Your task to perform on an android device: open sync settings in chrome Image 0: 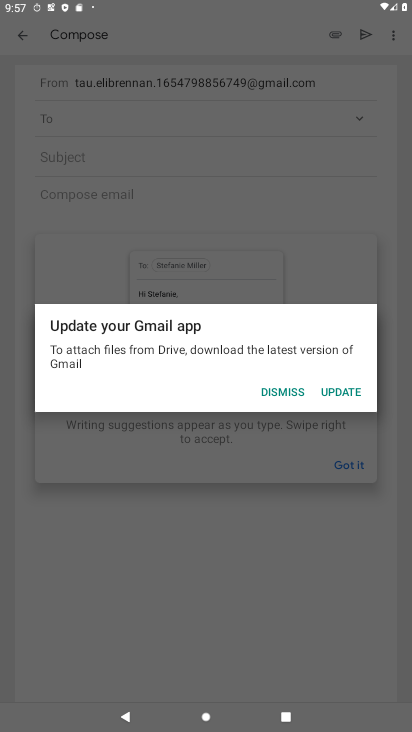
Step 0: press home button
Your task to perform on an android device: open sync settings in chrome Image 1: 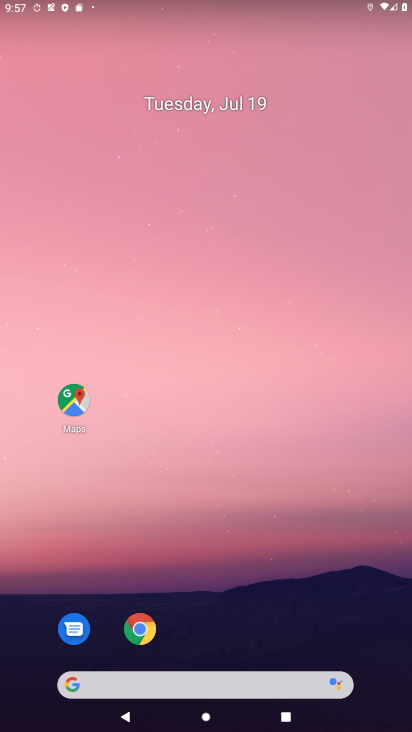
Step 1: click (144, 635)
Your task to perform on an android device: open sync settings in chrome Image 2: 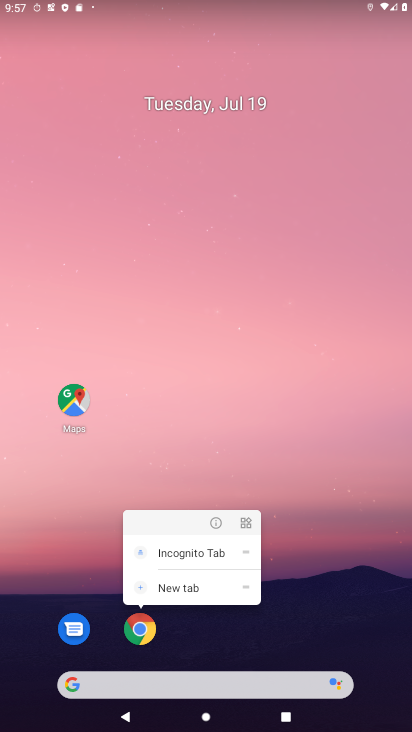
Step 2: click (138, 623)
Your task to perform on an android device: open sync settings in chrome Image 3: 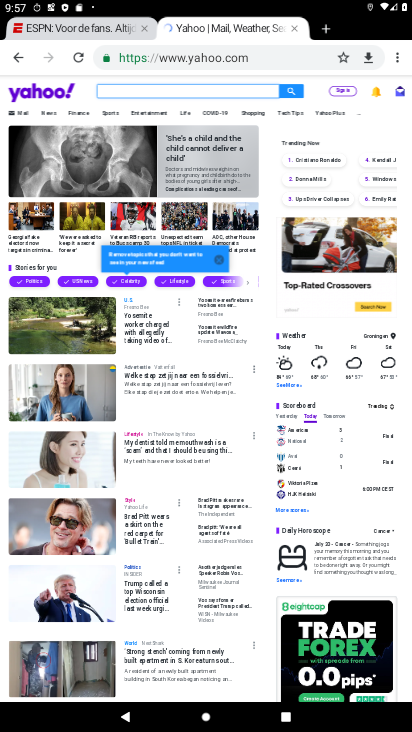
Step 3: click (397, 58)
Your task to perform on an android device: open sync settings in chrome Image 4: 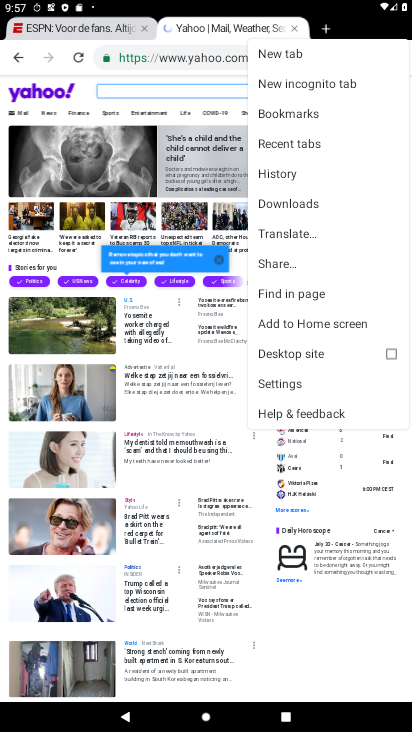
Step 4: click (290, 387)
Your task to perform on an android device: open sync settings in chrome Image 5: 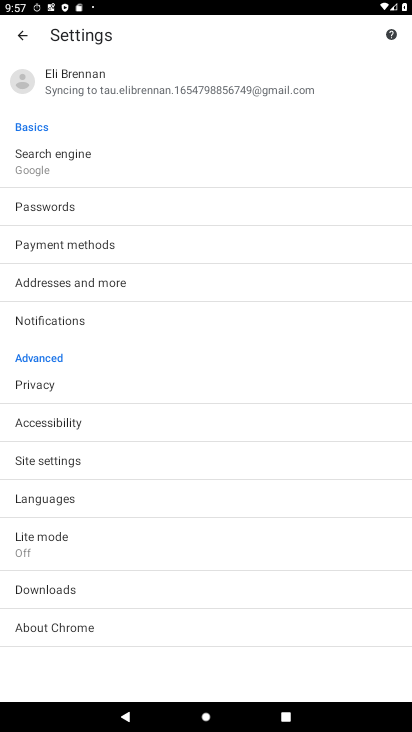
Step 5: click (168, 84)
Your task to perform on an android device: open sync settings in chrome Image 6: 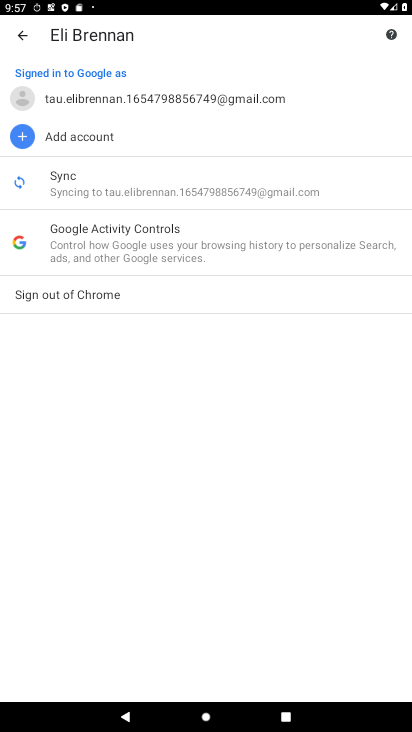
Step 6: click (146, 184)
Your task to perform on an android device: open sync settings in chrome Image 7: 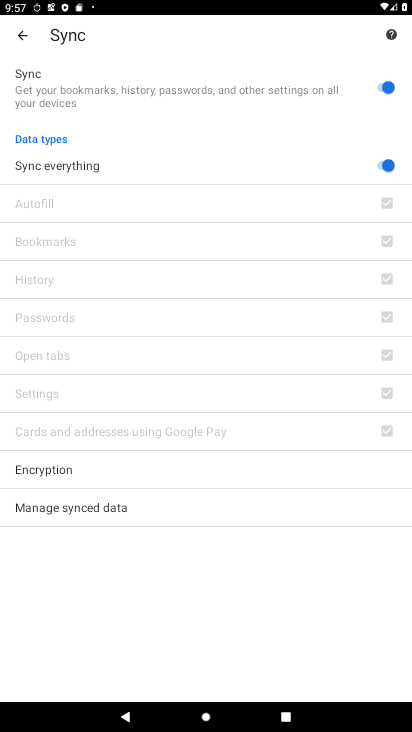
Step 7: task complete